Your task to perform on an android device: Go to display settings Image 0: 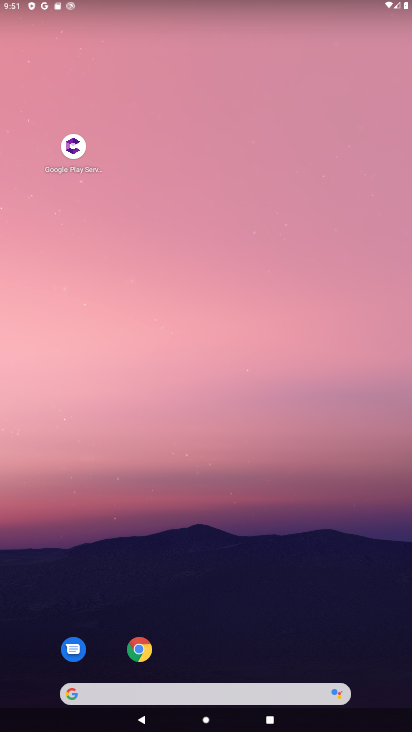
Step 0: drag from (195, 680) to (200, 252)
Your task to perform on an android device: Go to display settings Image 1: 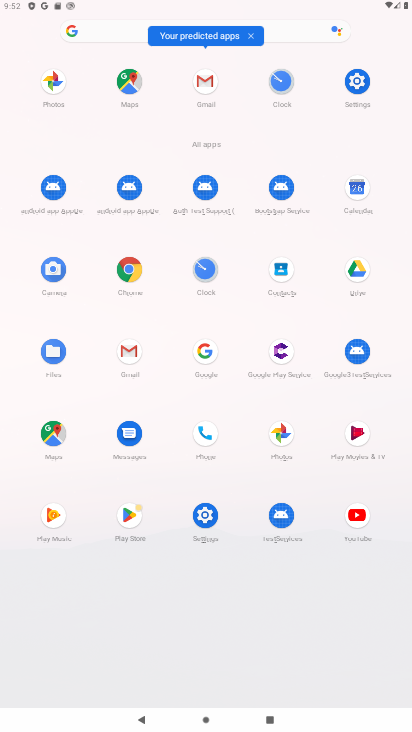
Step 1: click (352, 81)
Your task to perform on an android device: Go to display settings Image 2: 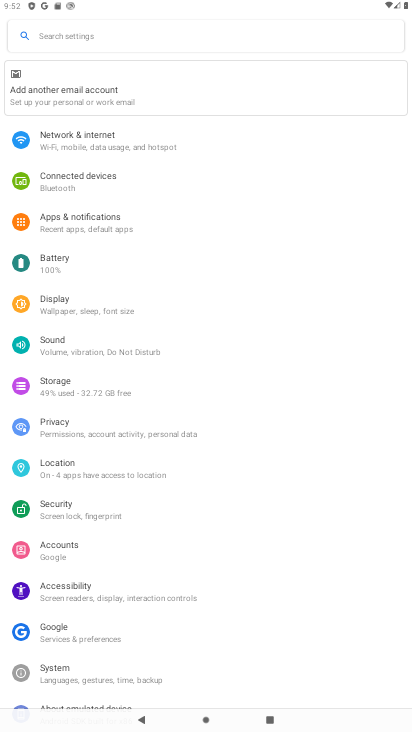
Step 2: click (84, 313)
Your task to perform on an android device: Go to display settings Image 3: 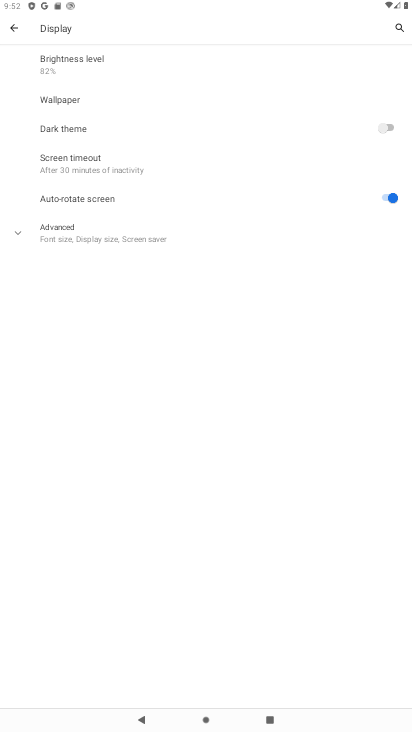
Step 3: click (73, 226)
Your task to perform on an android device: Go to display settings Image 4: 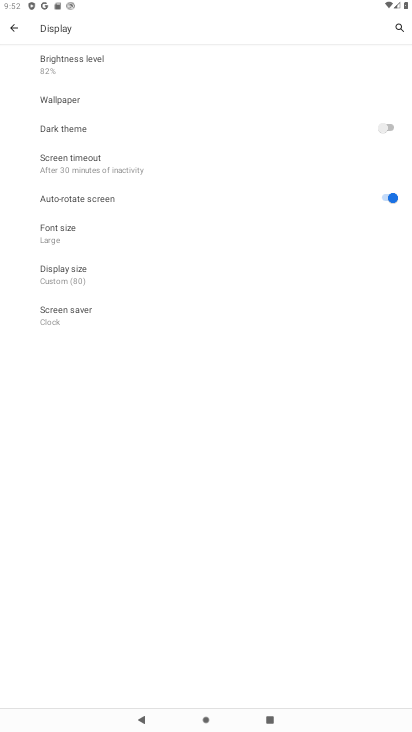
Step 4: task complete